Your task to perform on an android device: Open Amazon Image 0: 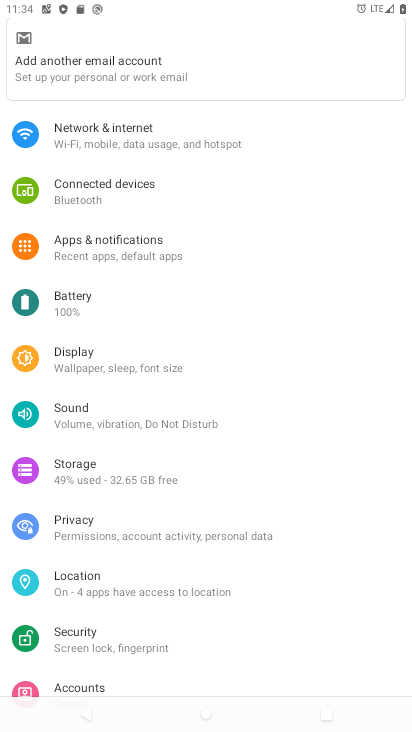
Step 0: press home button
Your task to perform on an android device: Open Amazon Image 1: 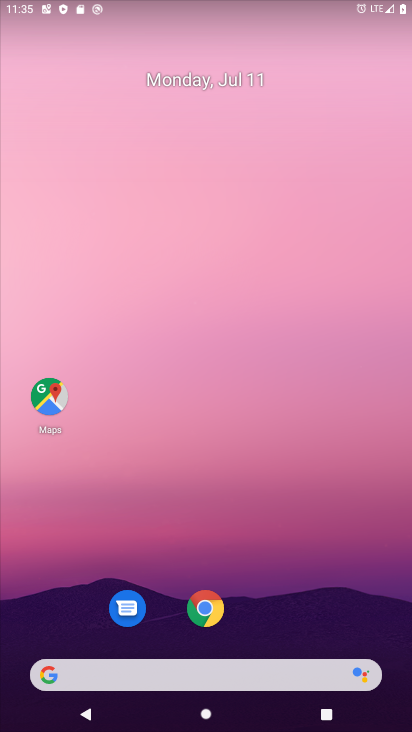
Step 1: click (119, 673)
Your task to perform on an android device: Open Amazon Image 2: 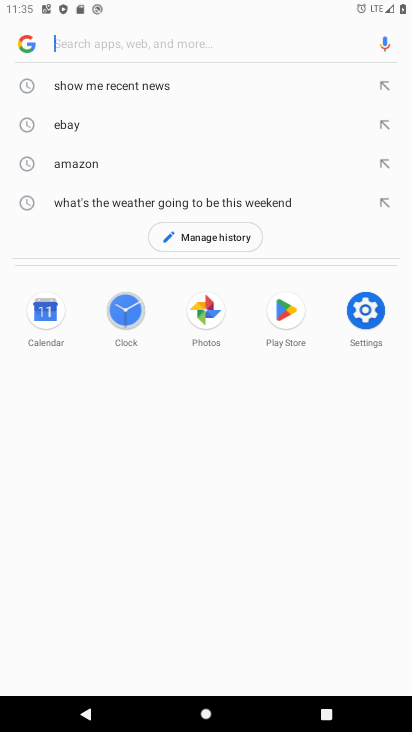
Step 2: click (93, 170)
Your task to perform on an android device: Open Amazon Image 3: 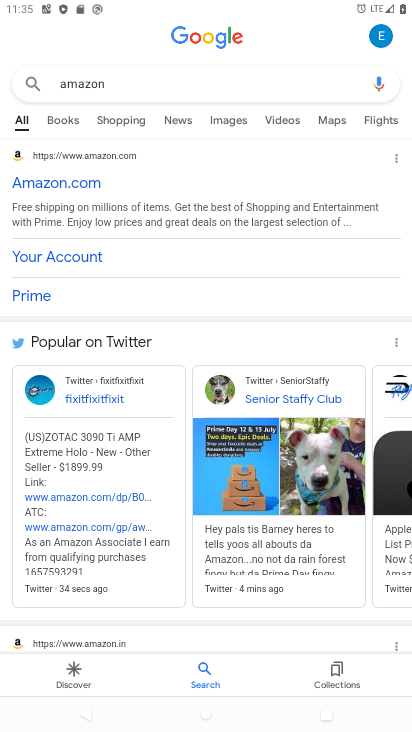
Step 3: task complete